Your task to perform on an android device: Search for seafood restaurants on Google Maps Image 0: 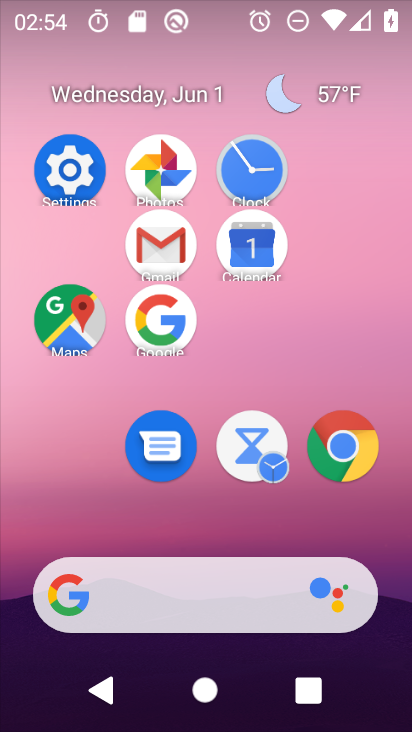
Step 0: click (50, 316)
Your task to perform on an android device: Search for seafood restaurants on Google Maps Image 1: 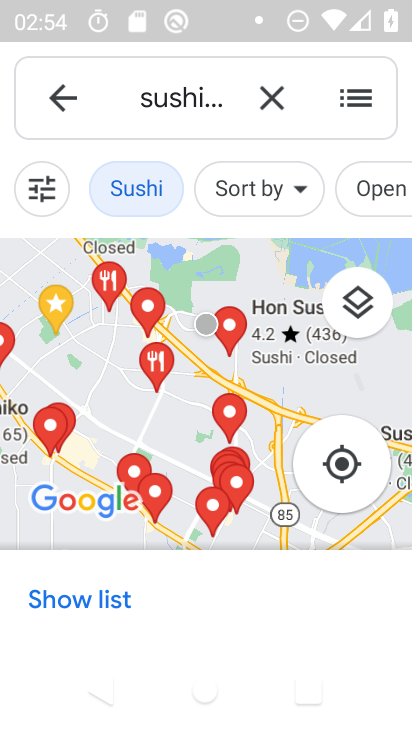
Step 1: click (288, 111)
Your task to perform on an android device: Search for seafood restaurants on Google Maps Image 2: 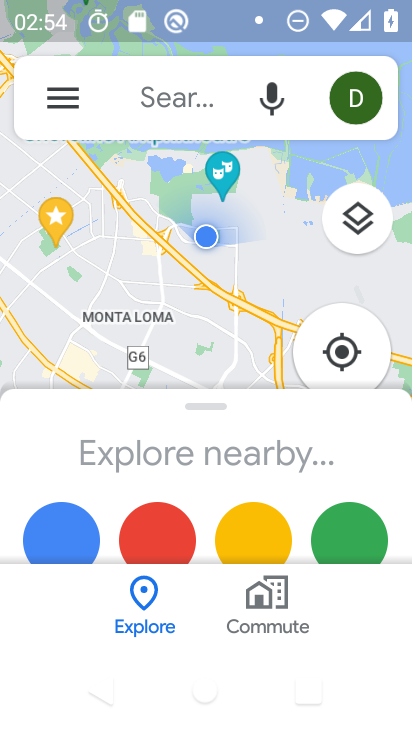
Step 2: click (176, 96)
Your task to perform on an android device: Search for seafood restaurants on Google Maps Image 3: 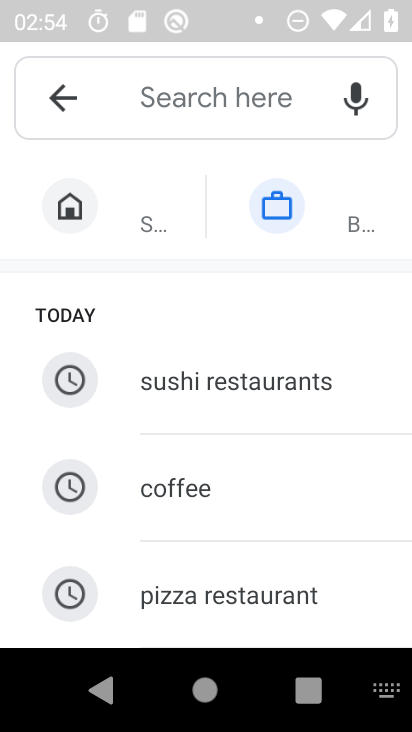
Step 3: drag from (276, 512) to (297, 133)
Your task to perform on an android device: Search for seafood restaurants on Google Maps Image 4: 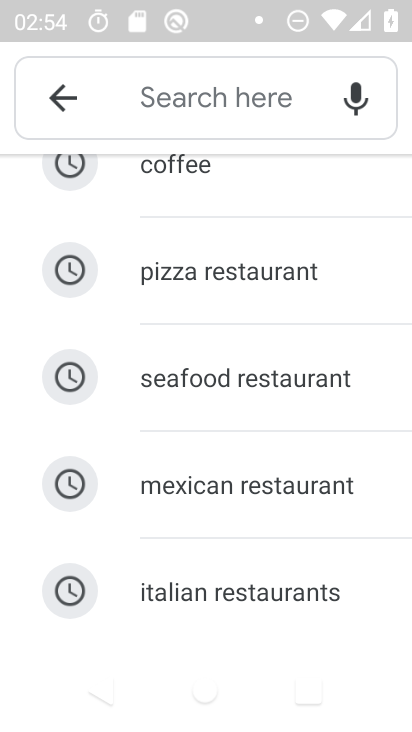
Step 4: click (281, 379)
Your task to perform on an android device: Search for seafood restaurants on Google Maps Image 5: 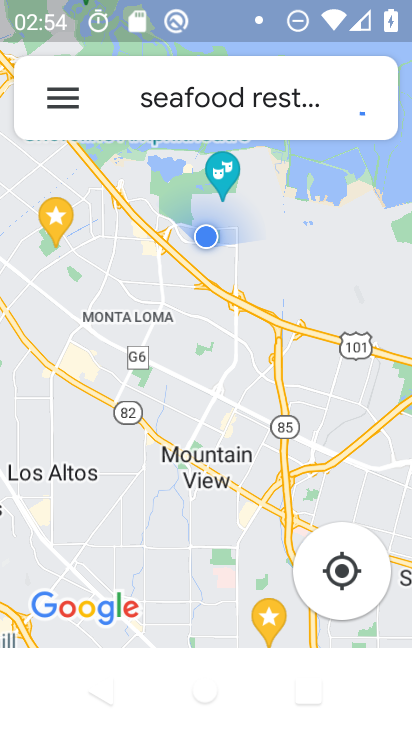
Step 5: task complete